Your task to perform on an android device: Open Chrome and go to the settings page Image 0: 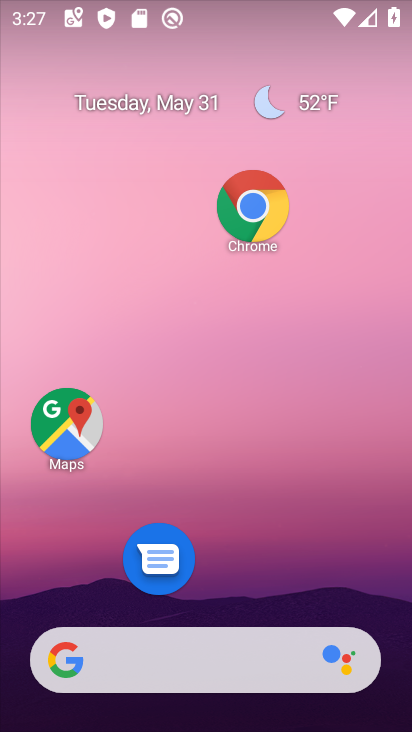
Step 0: click (234, 187)
Your task to perform on an android device: Open Chrome and go to the settings page Image 1: 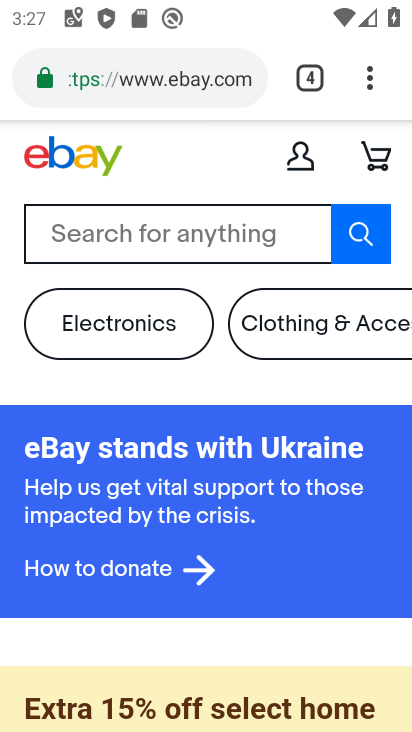
Step 1: click (359, 76)
Your task to perform on an android device: Open Chrome and go to the settings page Image 2: 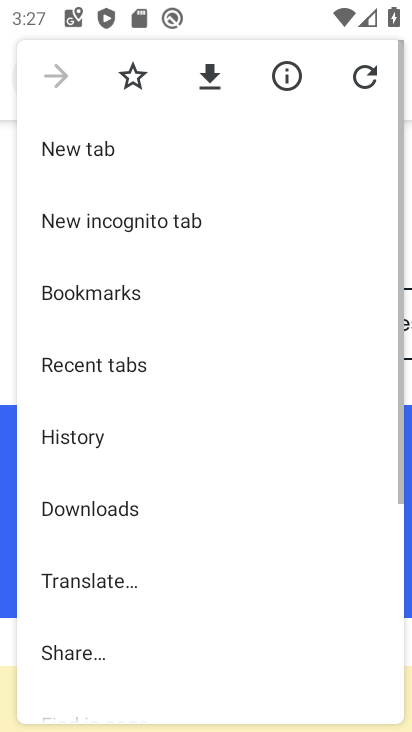
Step 2: drag from (203, 605) to (171, 278)
Your task to perform on an android device: Open Chrome and go to the settings page Image 3: 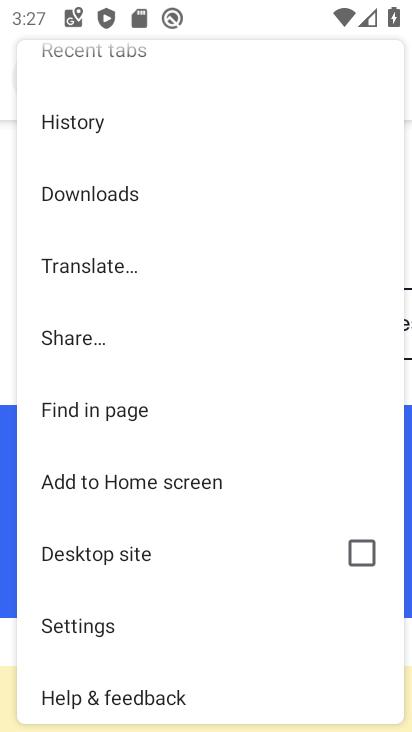
Step 3: click (149, 630)
Your task to perform on an android device: Open Chrome and go to the settings page Image 4: 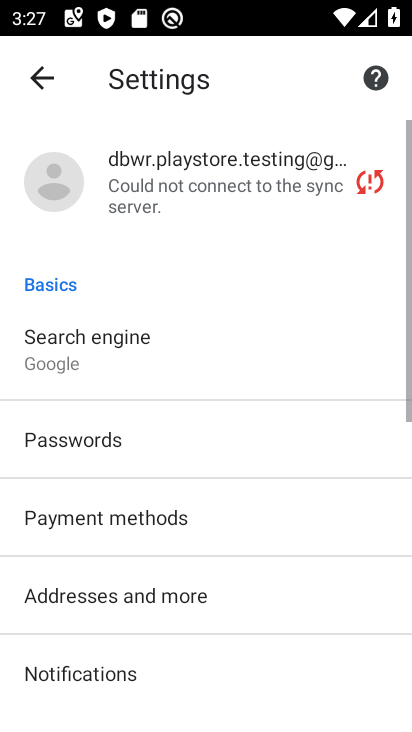
Step 4: task complete